Your task to perform on an android device: add a label to a message in the gmail app Image 0: 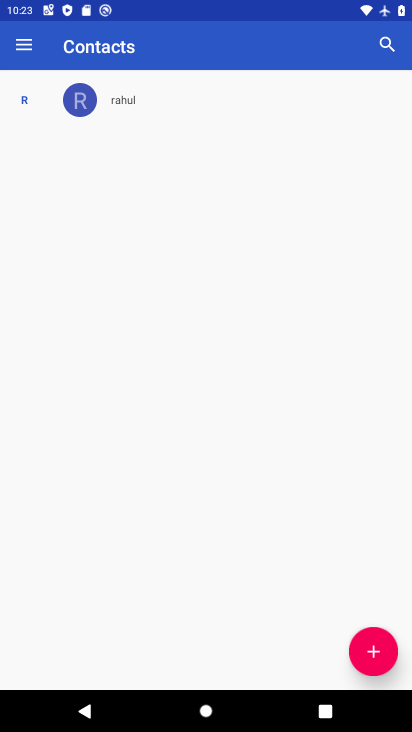
Step 0: press home button
Your task to perform on an android device: add a label to a message in the gmail app Image 1: 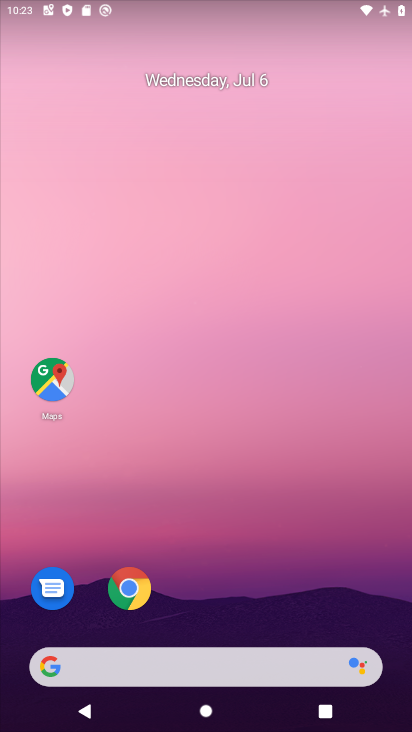
Step 1: drag from (231, 461) to (210, 295)
Your task to perform on an android device: add a label to a message in the gmail app Image 2: 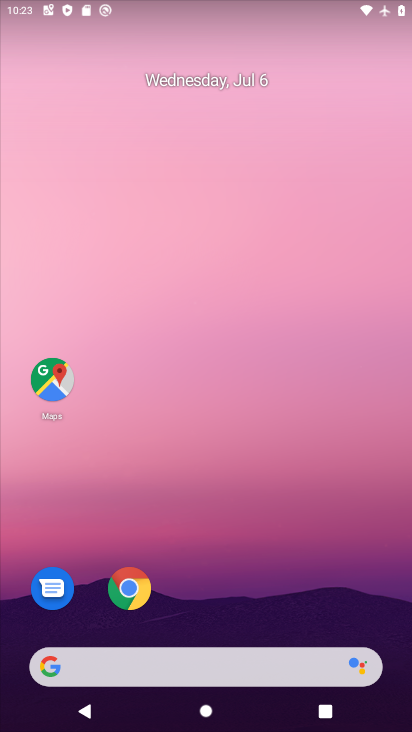
Step 2: drag from (245, 646) to (224, 206)
Your task to perform on an android device: add a label to a message in the gmail app Image 3: 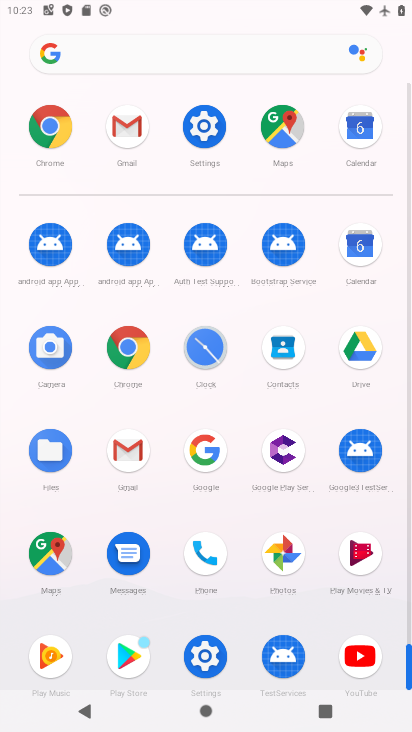
Step 3: click (112, 120)
Your task to perform on an android device: add a label to a message in the gmail app Image 4: 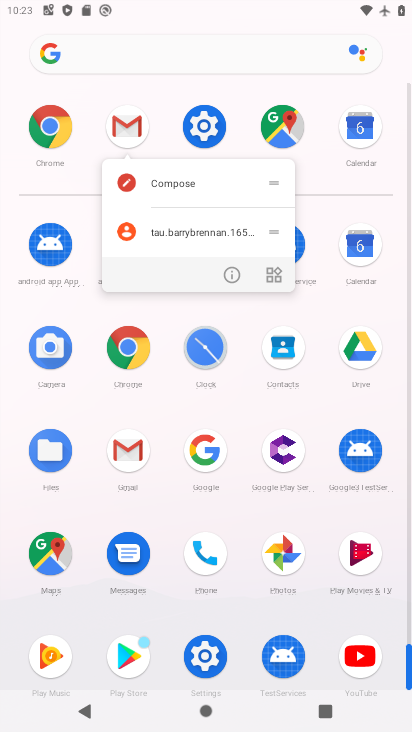
Step 4: click (112, 120)
Your task to perform on an android device: add a label to a message in the gmail app Image 5: 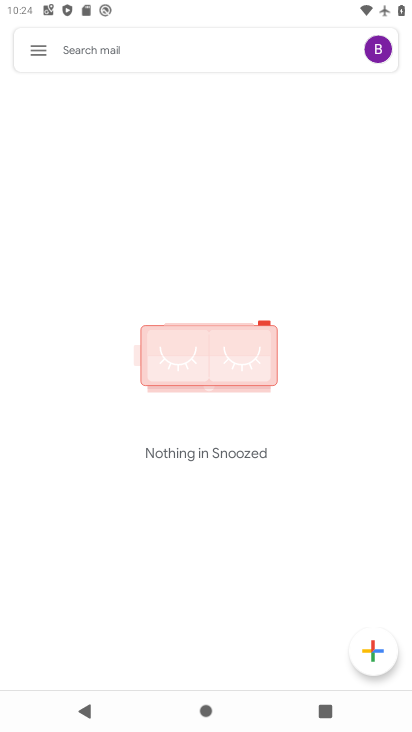
Step 5: click (46, 46)
Your task to perform on an android device: add a label to a message in the gmail app Image 6: 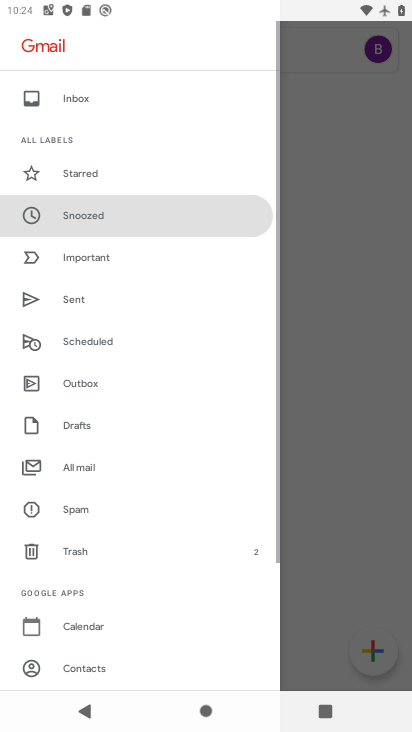
Step 6: click (109, 467)
Your task to perform on an android device: add a label to a message in the gmail app Image 7: 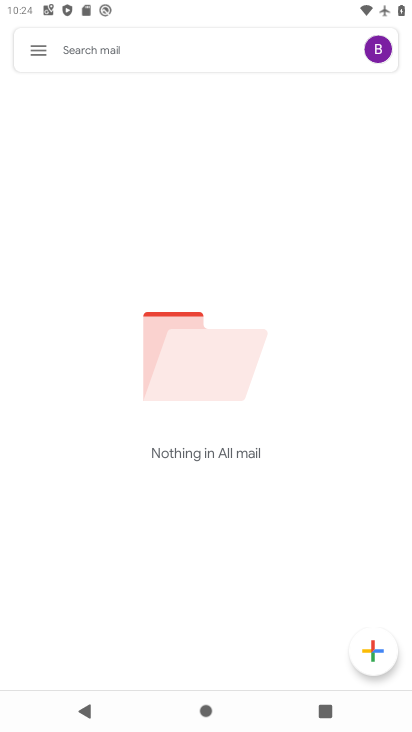
Step 7: task complete